Your task to perform on an android device: toggle improve location accuracy Image 0: 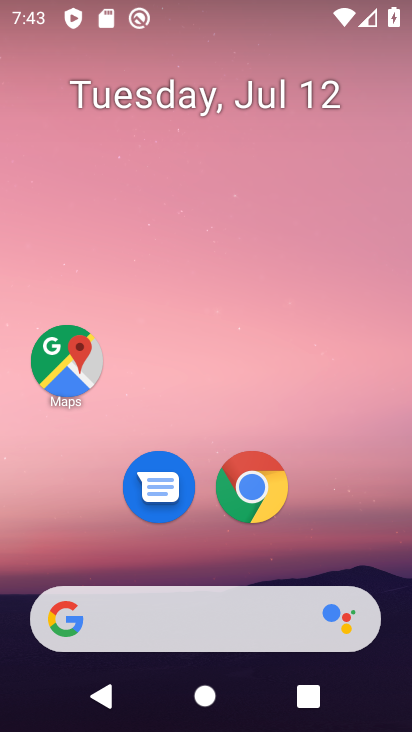
Step 0: drag from (190, 576) to (230, 211)
Your task to perform on an android device: toggle improve location accuracy Image 1: 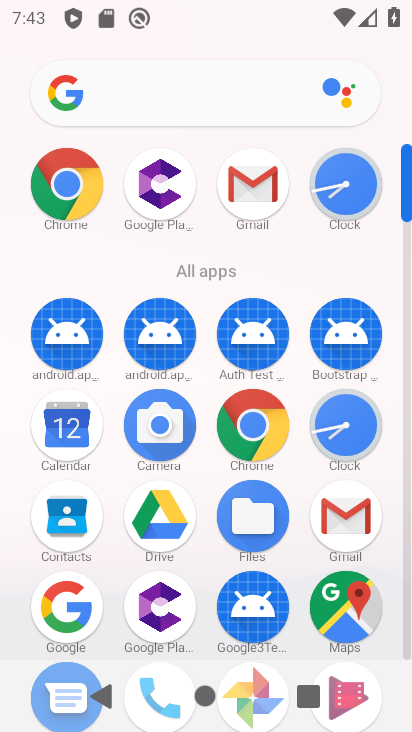
Step 1: drag from (263, 480) to (283, 257)
Your task to perform on an android device: toggle improve location accuracy Image 2: 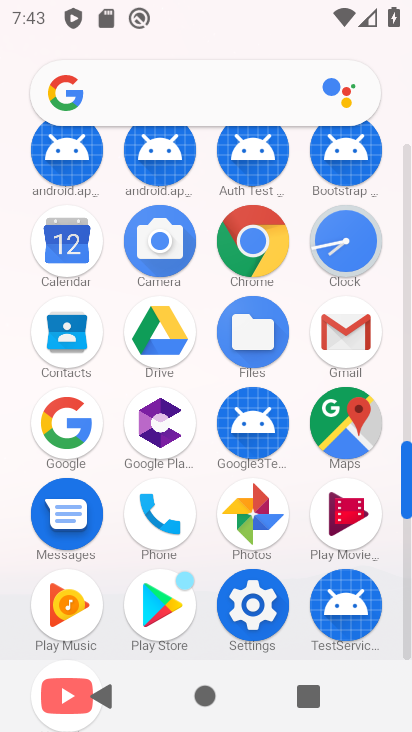
Step 2: click (250, 610)
Your task to perform on an android device: toggle improve location accuracy Image 3: 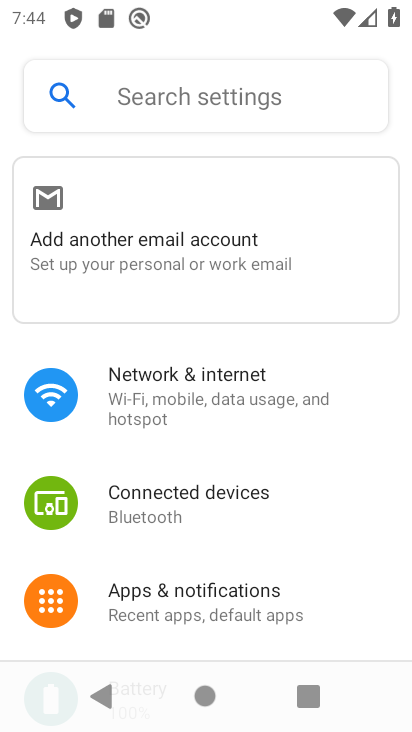
Step 3: drag from (251, 609) to (254, 295)
Your task to perform on an android device: toggle improve location accuracy Image 4: 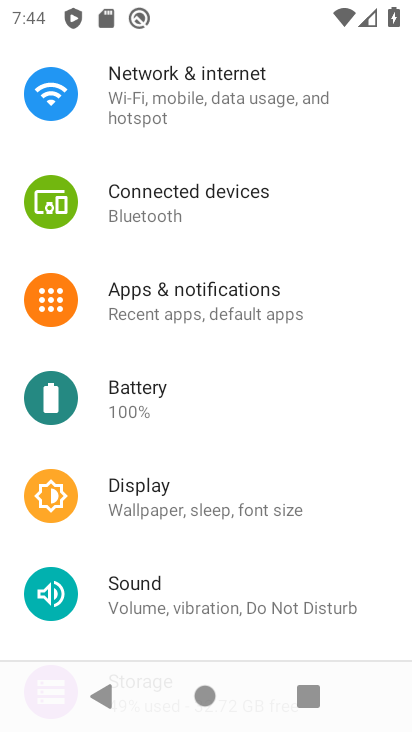
Step 4: drag from (221, 498) to (275, 130)
Your task to perform on an android device: toggle improve location accuracy Image 5: 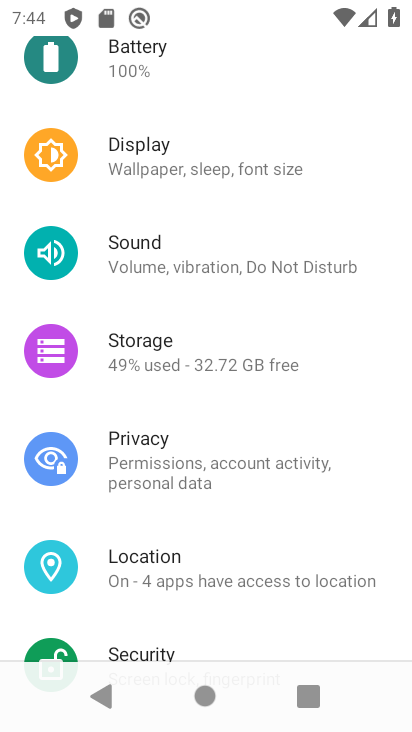
Step 5: drag from (186, 558) to (239, 224)
Your task to perform on an android device: toggle improve location accuracy Image 6: 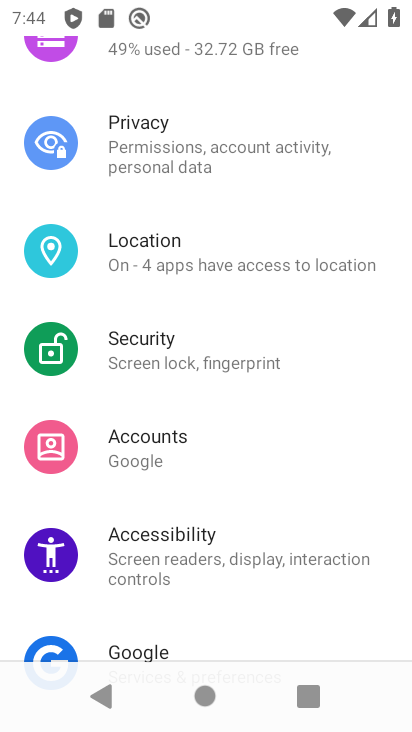
Step 6: click (230, 262)
Your task to perform on an android device: toggle improve location accuracy Image 7: 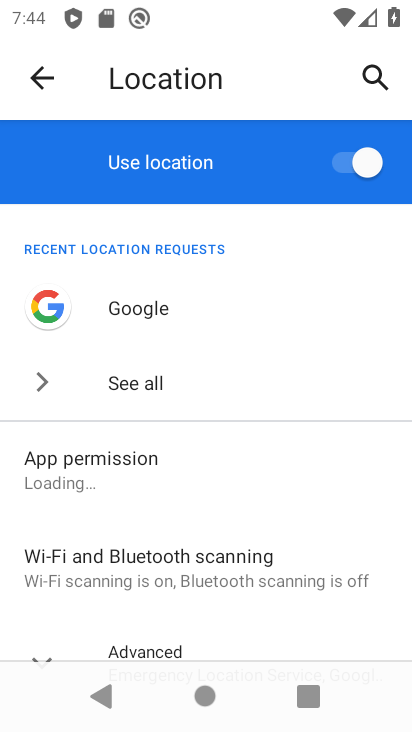
Step 7: drag from (172, 569) to (211, 258)
Your task to perform on an android device: toggle improve location accuracy Image 8: 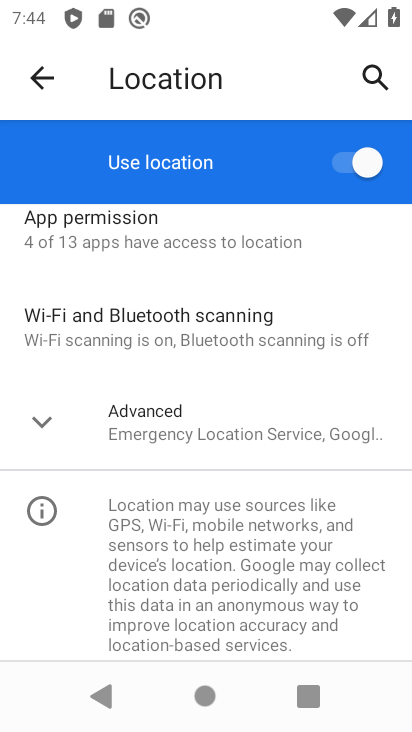
Step 8: click (142, 431)
Your task to perform on an android device: toggle improve location accuracy Image 9: 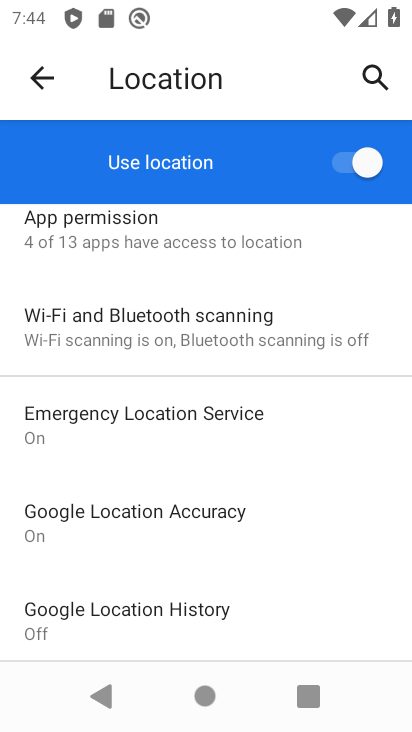
Step 9: click (129, 531)
Your task to perform on an android device: toggle improve location accuracy Image 10: 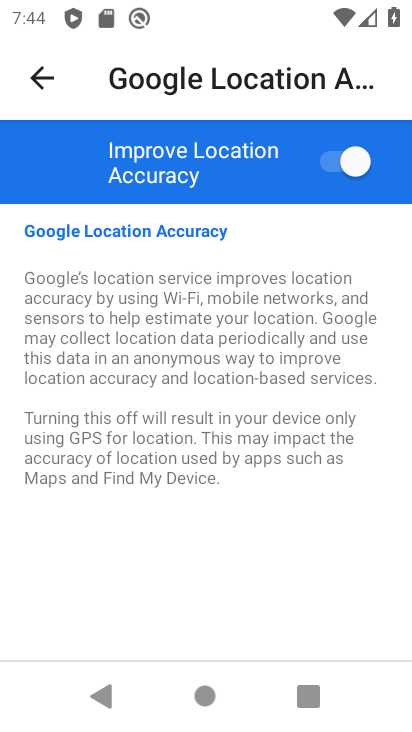
Step 10: click (338, 160)
Your task to perform on an android device: toggle improve location accuracy Image 11: 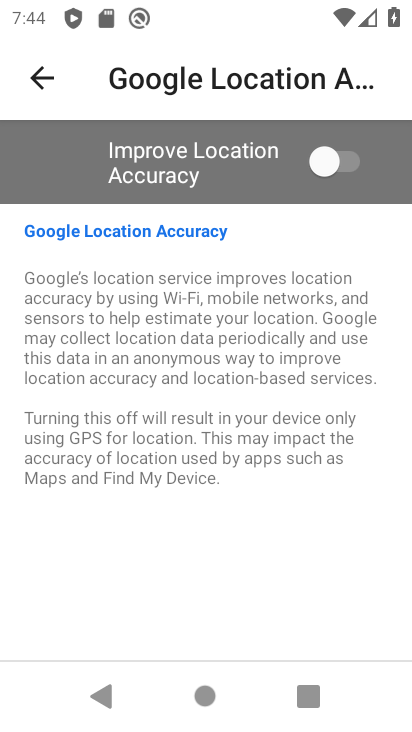
Step 11: task complete